Your task to perform on an android device: star an email in the gmail app Image 0: 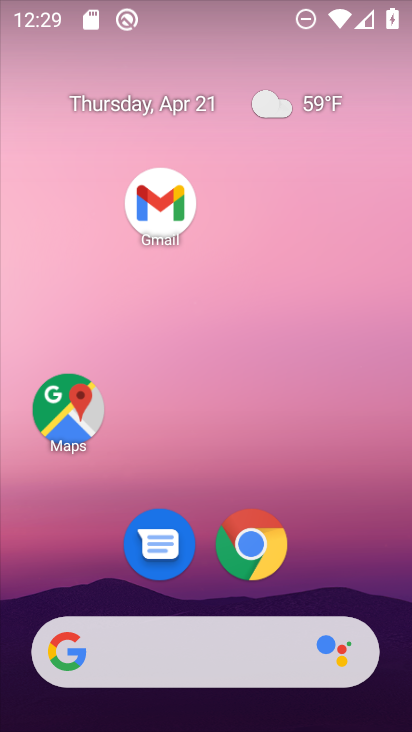
Step 0: click (163, 223)
Your task to perform on an android device: star an email in the gmail app Image 1: 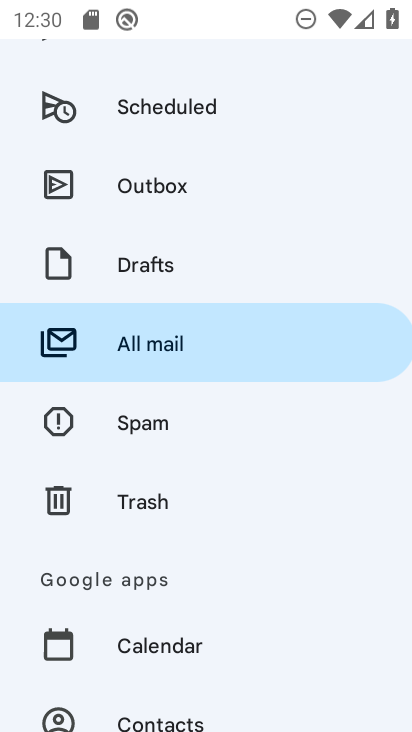
Step 1: click (207, 346)
Your task to perform on an android device: star an email in the gmail app Image 2: 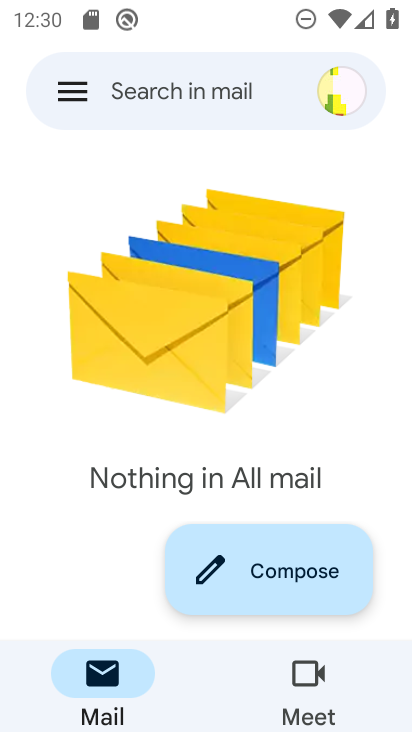
Step 2: task complete